Your task to perform on an android device: see tabs open on other devices in the chrome app Image 0: 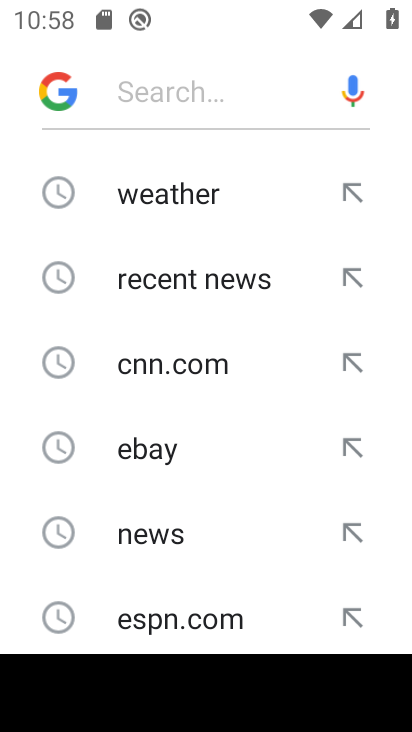
Step 0: press home button
Your task to perform on an android device: see tabs open on other devices in the chrome app Image 1: 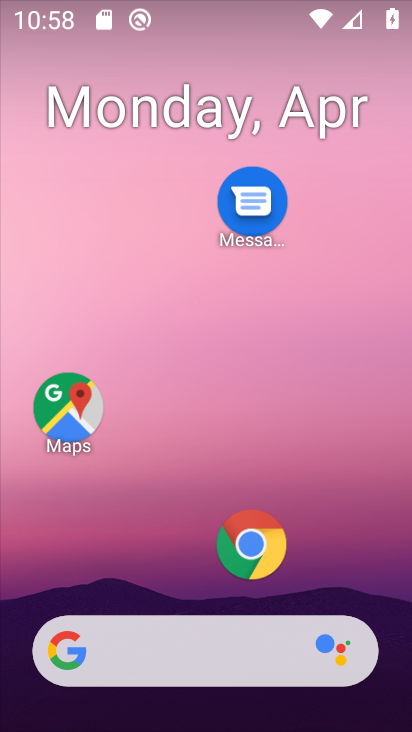
Step 1: click (248, 533)
Your task to perform on an android device: see tabs open on other devices in the chrome app Image 2: 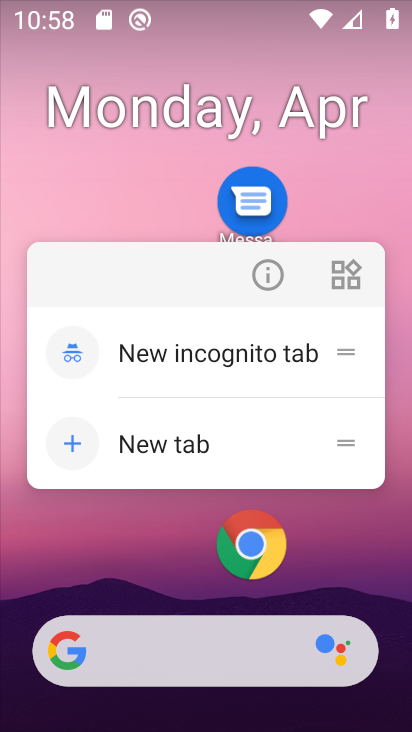
Step 2: drag from (159, 569) to (213, 142)
Your task to perform on an android device: see tabs open on other devices in the chrome app Image 3: 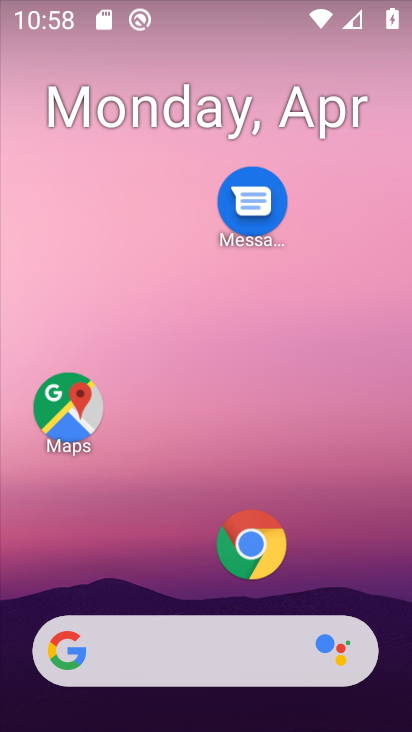
Step 3: drag from (185, 550) to (203, 79)
Your task to perform on an android device: see tabs open on other devices in the chrome app Image 4: 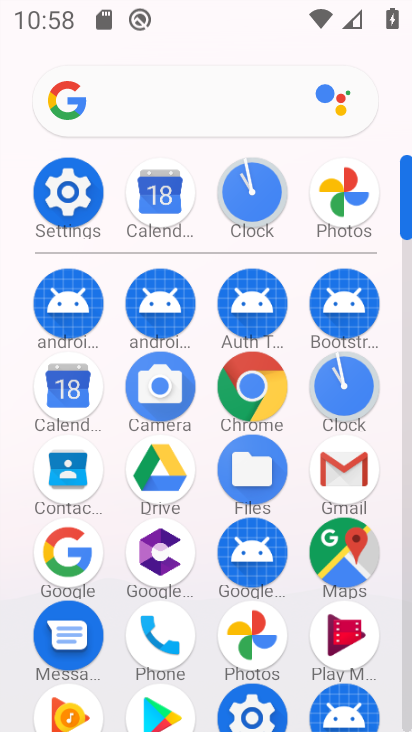
Step 4: click (246, 376)
Your task to perform on an android device: see tabs open on other devices in the chrome app Image 5: 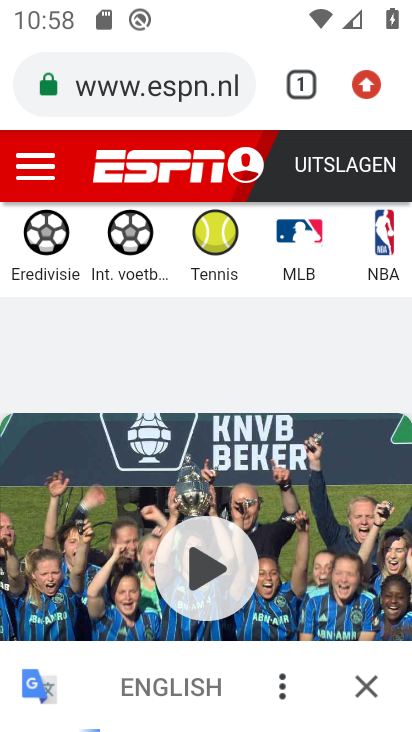
Step 5: click (360, 687)
Your task to perform on an android device: see tabs open on other devices in the chrome app Image 6: 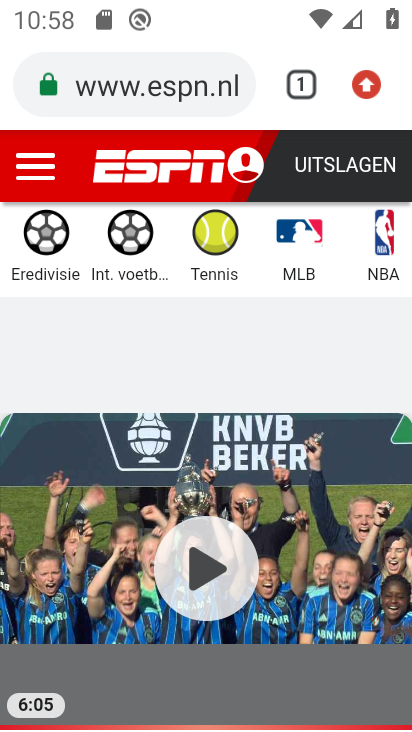
Step 6: click (361, 76)
Your task to perform on an android device: see tabs open on other devices in the chrome app Image 7: 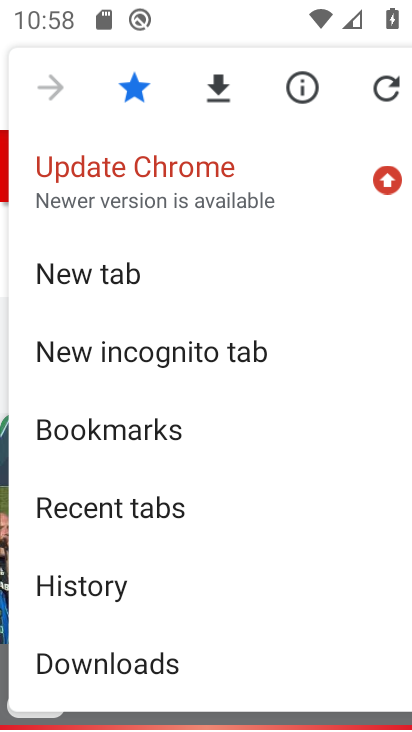
Step 7: click (159, 503)
Your task to perform on an android device: see tabs open on other devices in the chrome app Image 8: 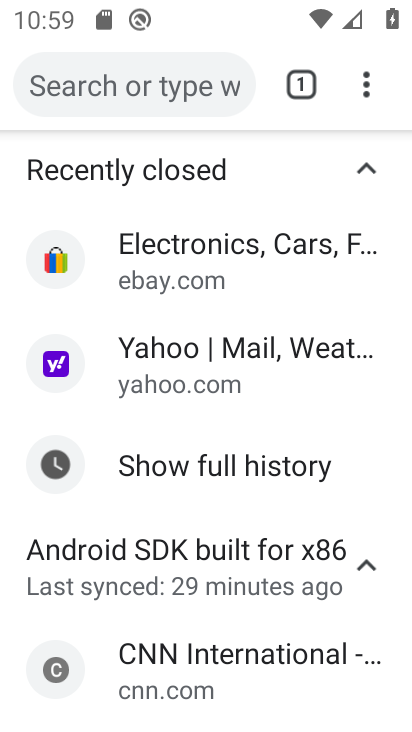
Step 8: task complete